Your task to perform on an android device: Clear the cart on costco.com. Search for bose soundlink mini on costco.com, select the first entry, add it to the cart, then select checkout. Image 0: 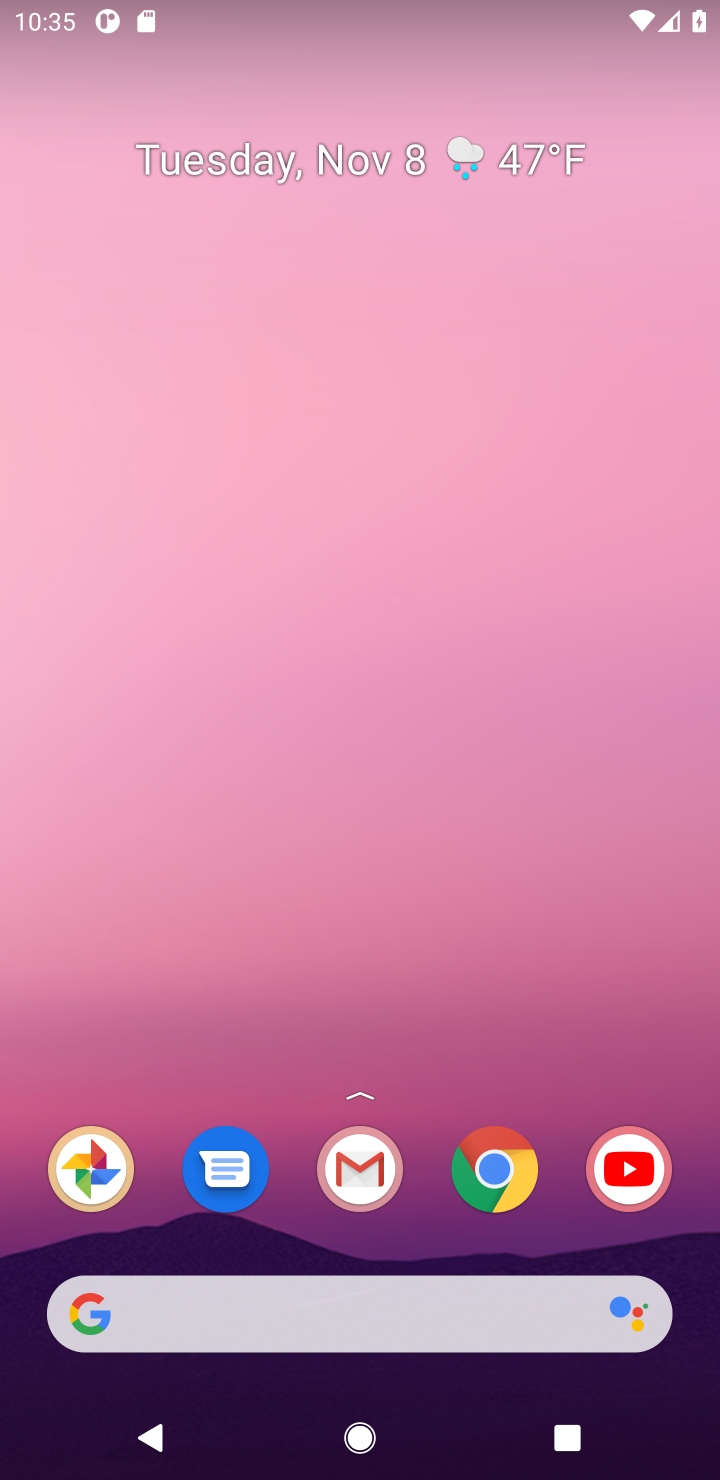
Step 0: click (495, 1150)
Your task to perform on an android device: Clear the cart on costco.com. Search for bose soundlink mini on costco.com, select the first entry, add it to the cart, then select checkout. Image 1: 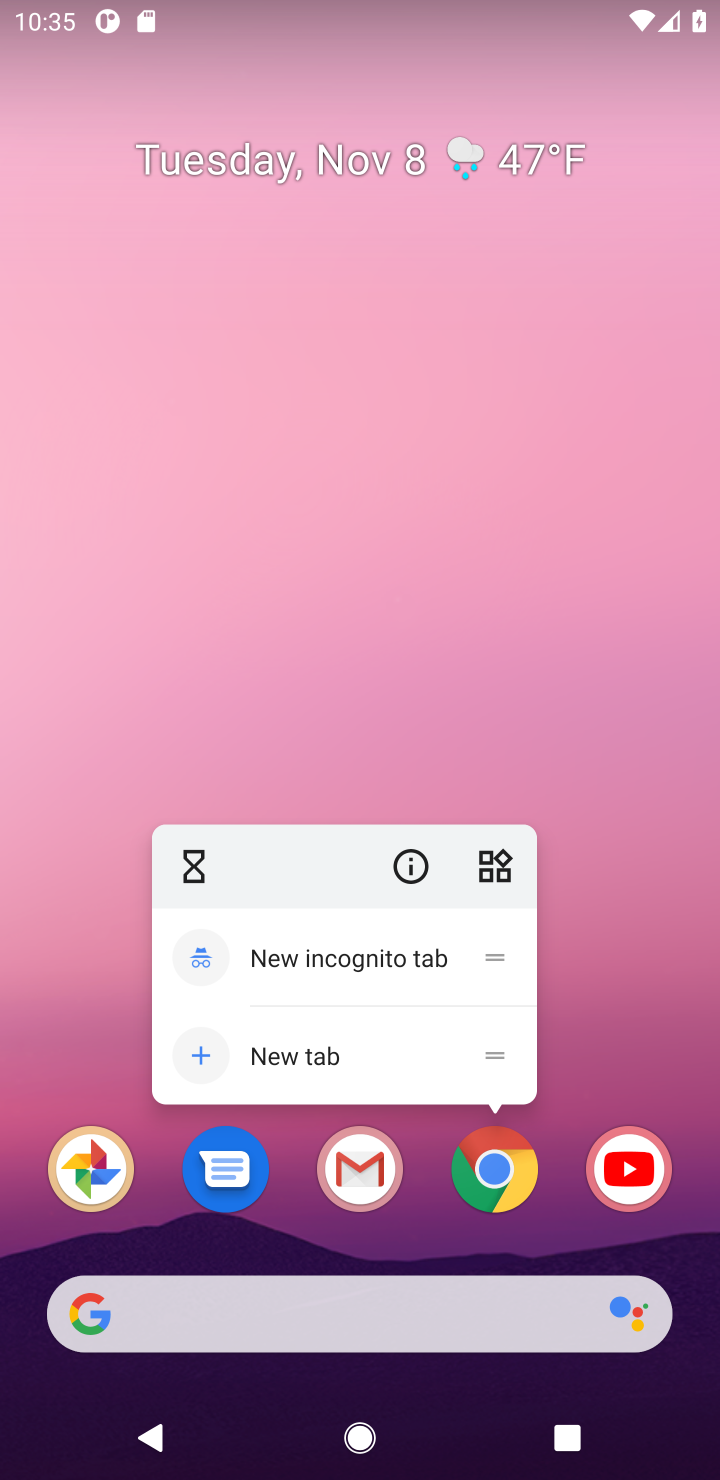
Step 1: click (499, 1148)
Your task to perform on an android device: Clear the cart on costco.com. Search for bose soundlink mini on costco.com, select the first entry, add it to the cart, then select checkout. Image 2: 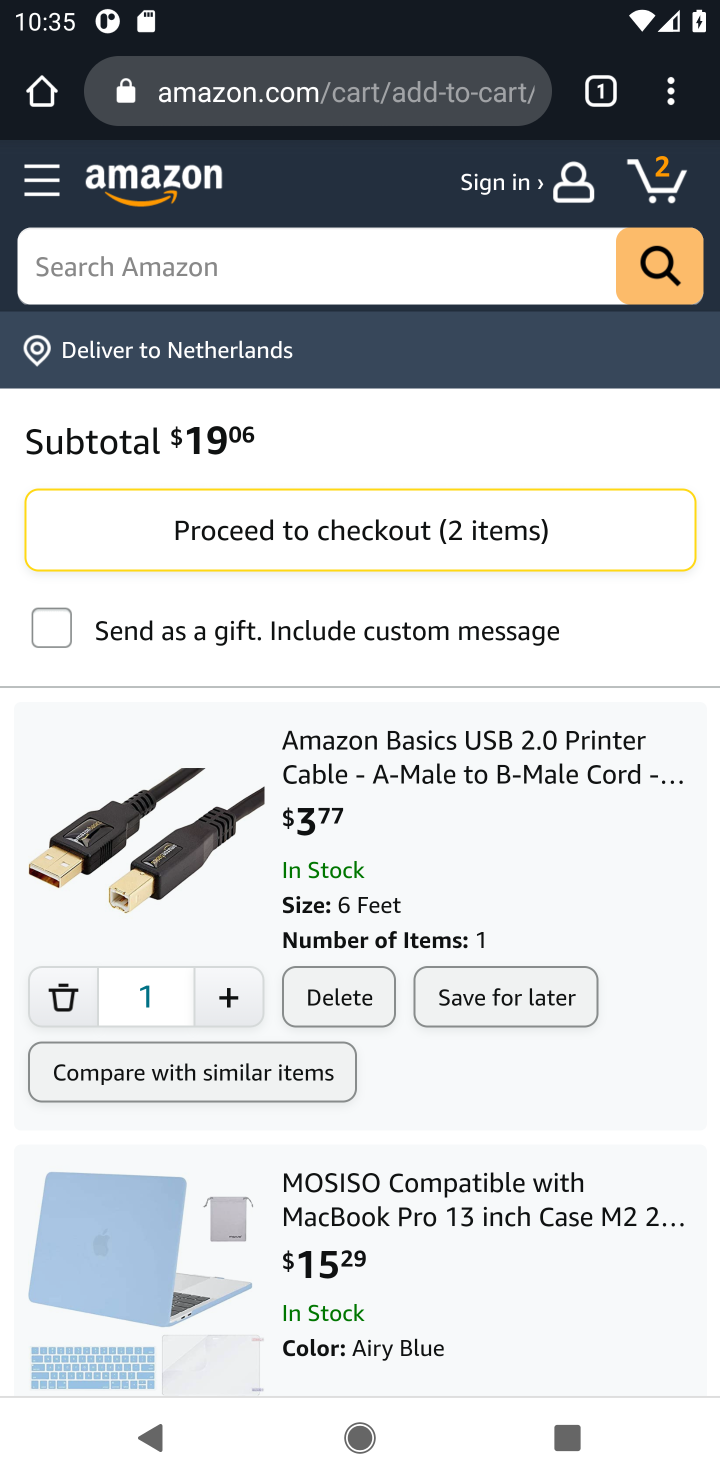
Step 2: click (404, 77)
Your task to perform on an android device: Clear the cart on costco.com. Search for bose soundlink mini on costco.com, select the first entry, add it to the cart, then select checkout. Image 3: 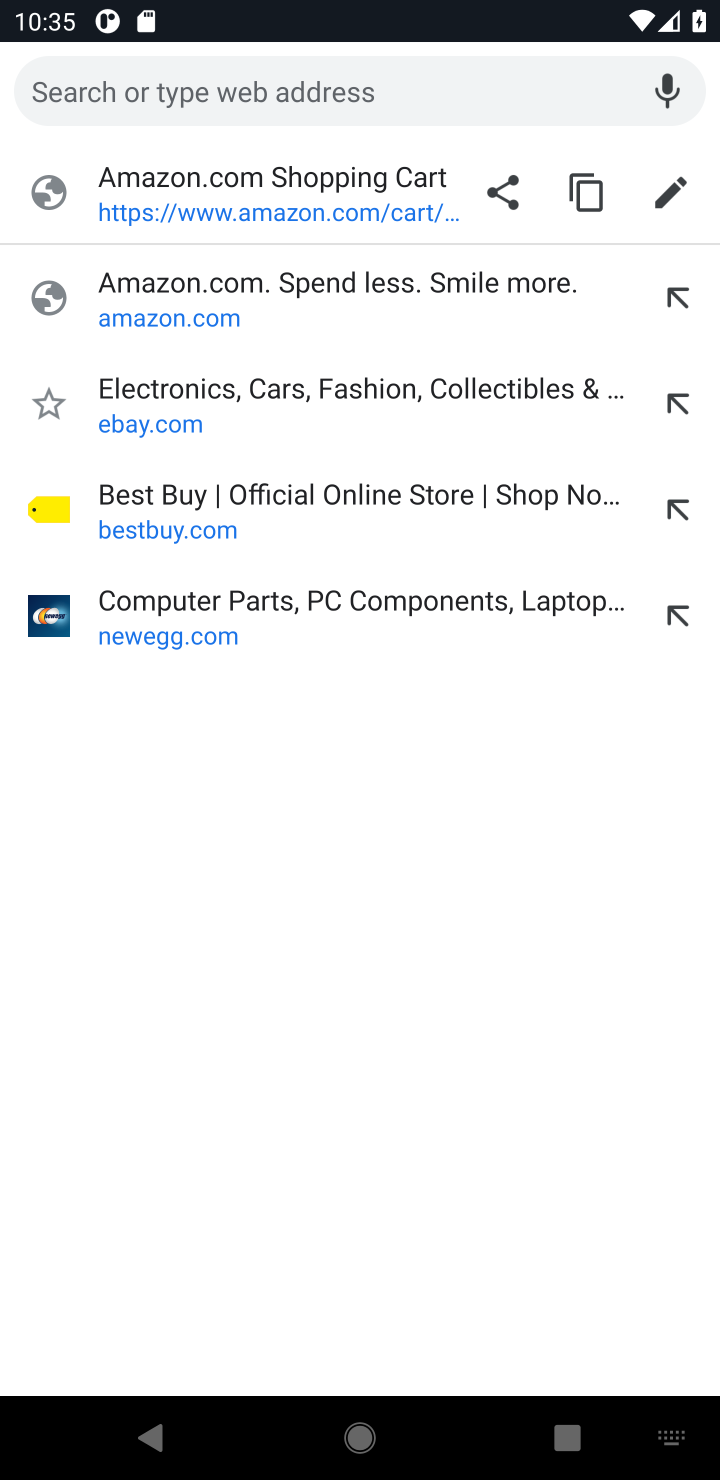
Step 3: type "costco.com"
Your task to perform on an android device: Clear the cart on costco.com. Search for bose soundlink mini on costco.com, select the first entry, add it to the cart, then select checkout. Image 4: 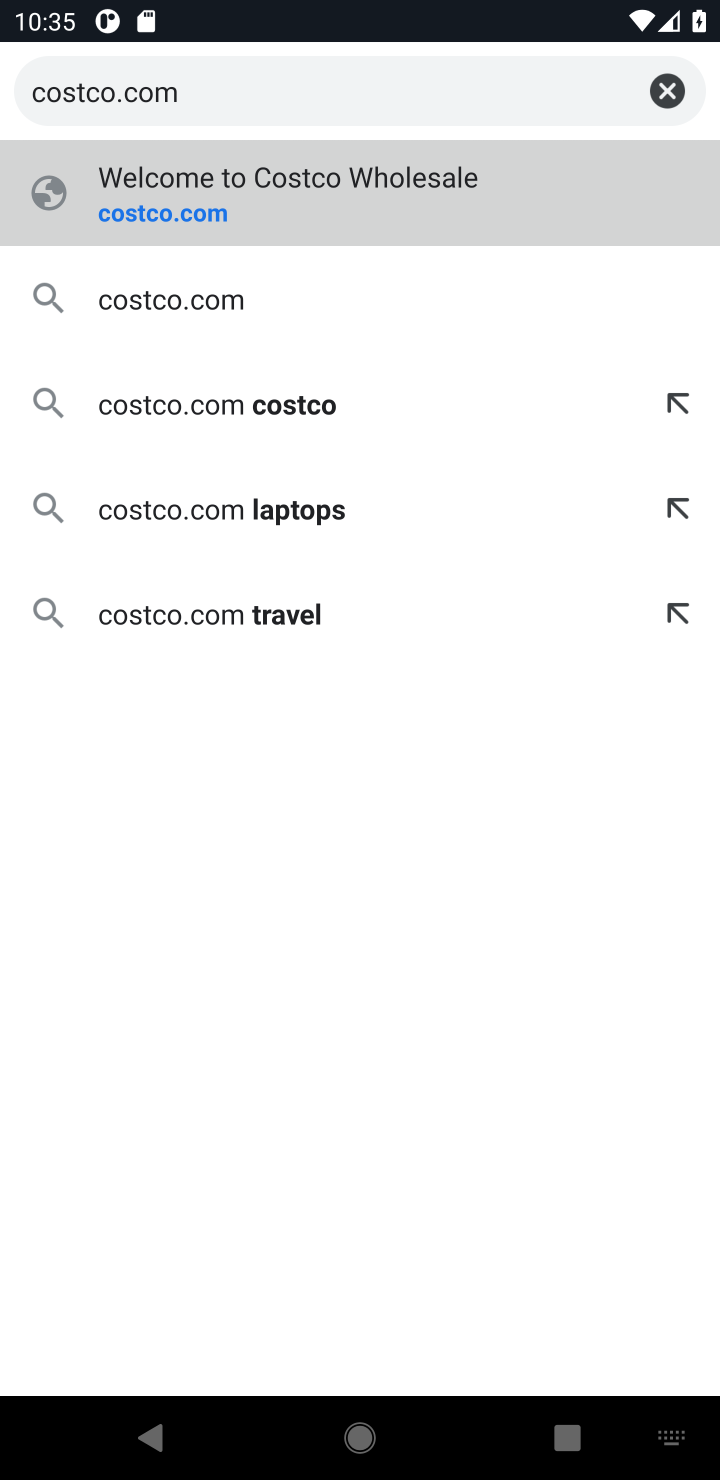
Step 4: press enter
Your task to perform on an android device: Clear the cart on costco.com. Search for bose soundlink mini on costco.com, select the first entry, add it to the cart, then select checkout. Image 5: 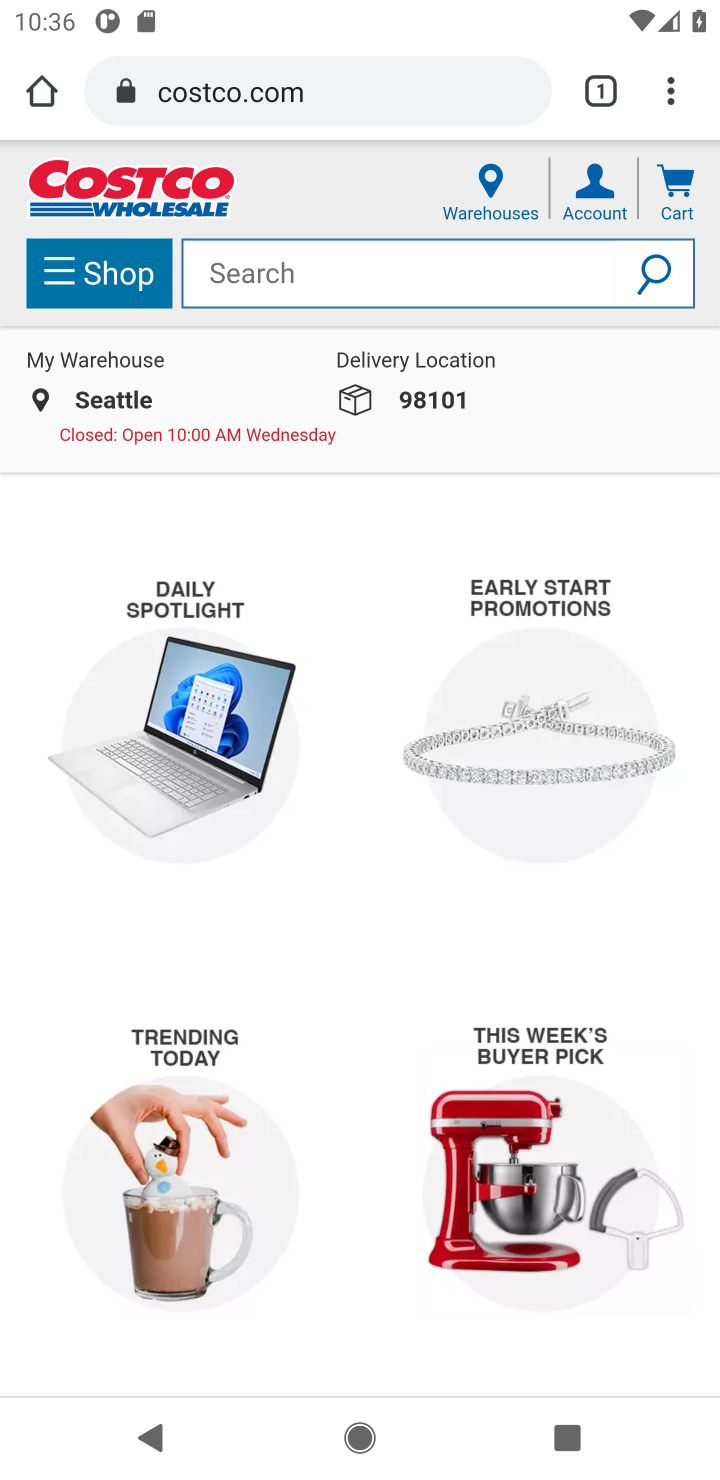
Step 5: click (379, 265)
Your task to perform on an android device: Clear the cart on costco.com. Search for bose soundlink mini on costco.com, select the first entry, add it to the cart, then select checkout. Image 6: 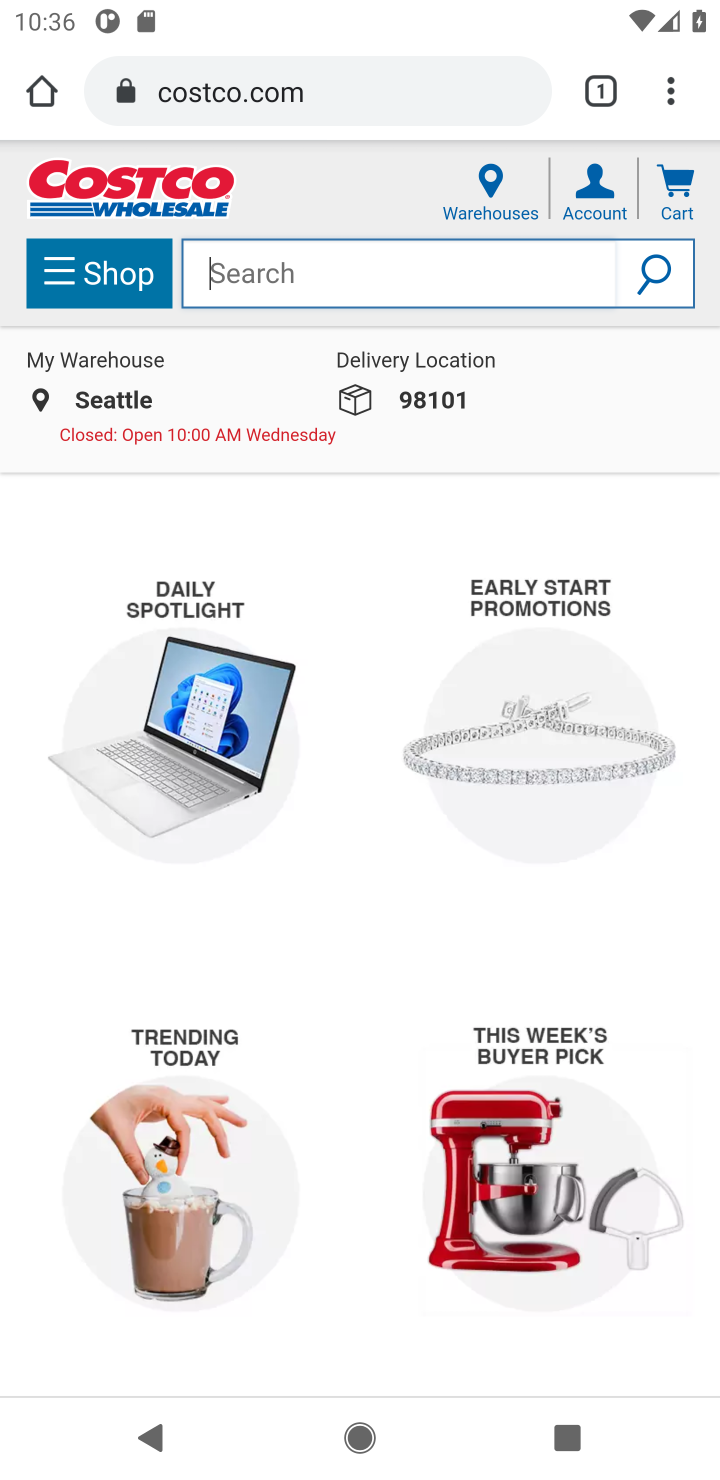
Step 6: press enter
Your task to perform on an android device: Clear the cart on costco.com. Search for bose soundlink mini on costco.com, select the first entry, add it to the cart, then select checkout. Image 7: 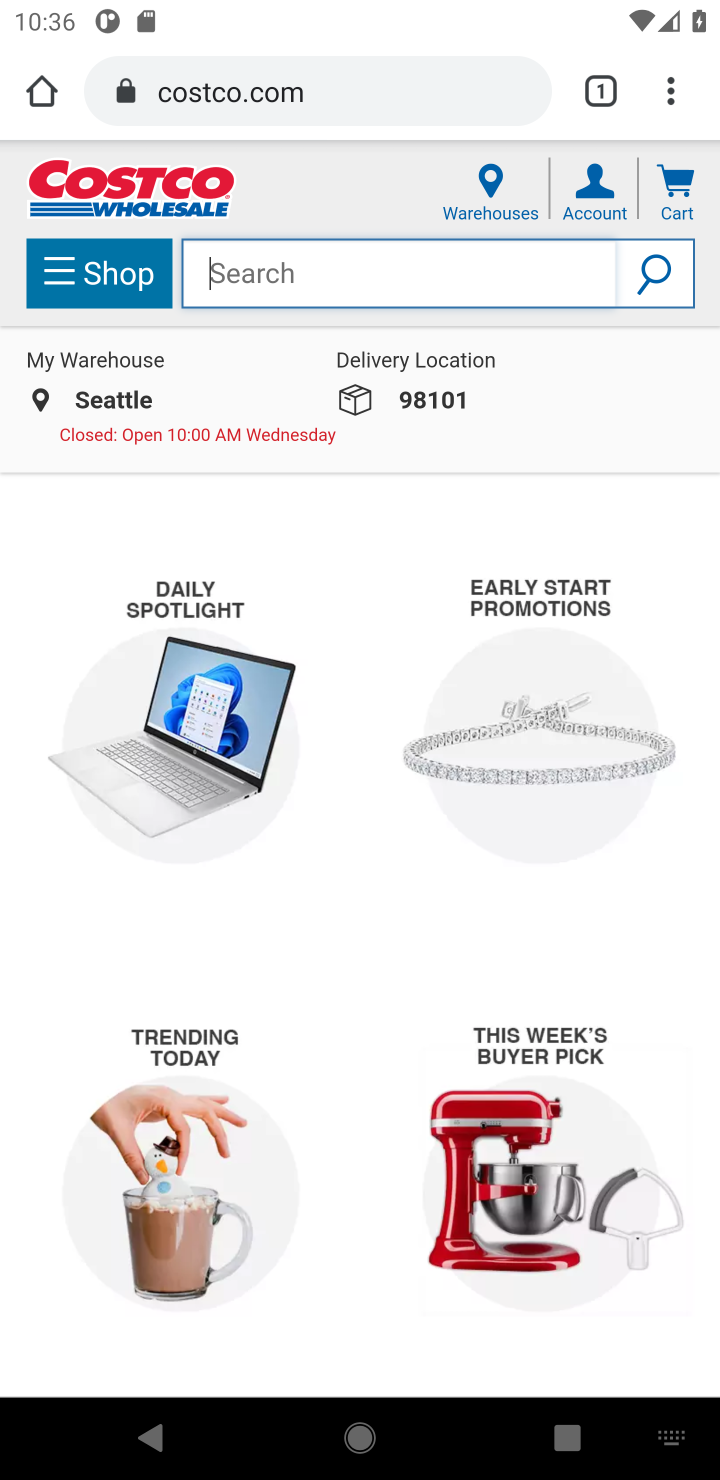
Step 7: type "bose soundlink mini "
Your task to perform on an android device: Clear the cart on costco.com. Search for bose soundlink mini on costco.com, select the first entry, add it to the cart, then select checkout. Image 8: 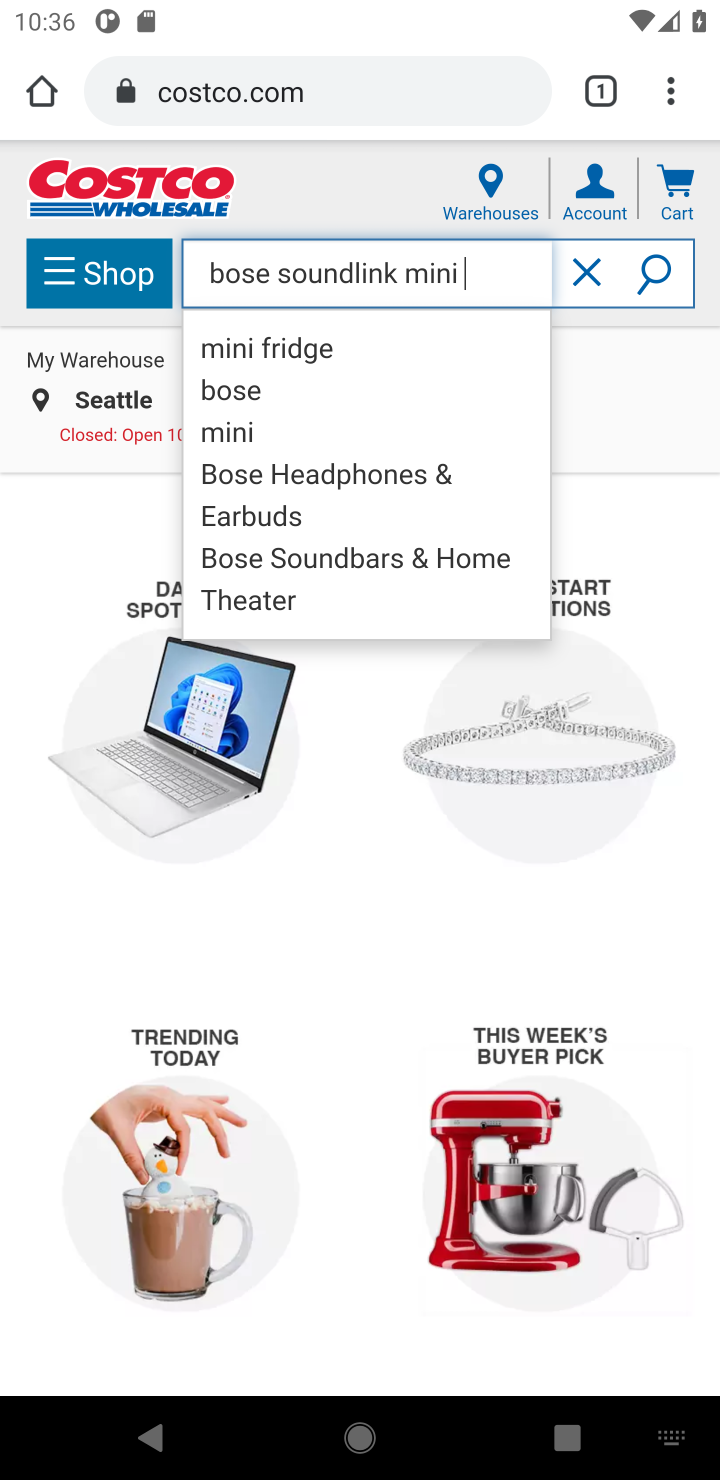
Step 8: click (638, 375)
Your task to perform on an android device: Clear the cart on costco.com. Search for bose soundlink mini on costco.com, select the first entry, add it to the cart, then select checkout. Image 9: 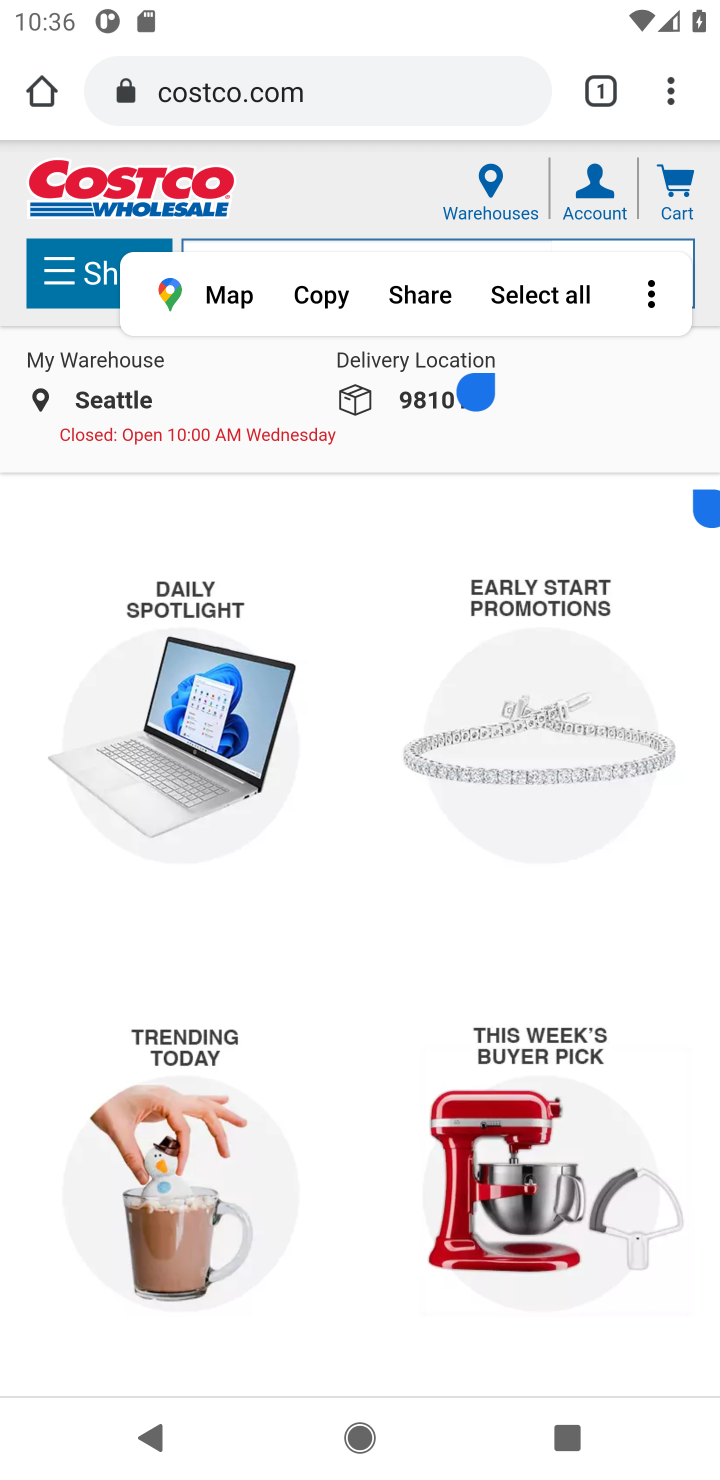
Step 9: click (641, 445)
Your task to perform on an android device: Clear the cart on costco.com. Search for bose soundlink mini on costco.com, select the first entry, add it to the cart, then select checkout. Image 10: 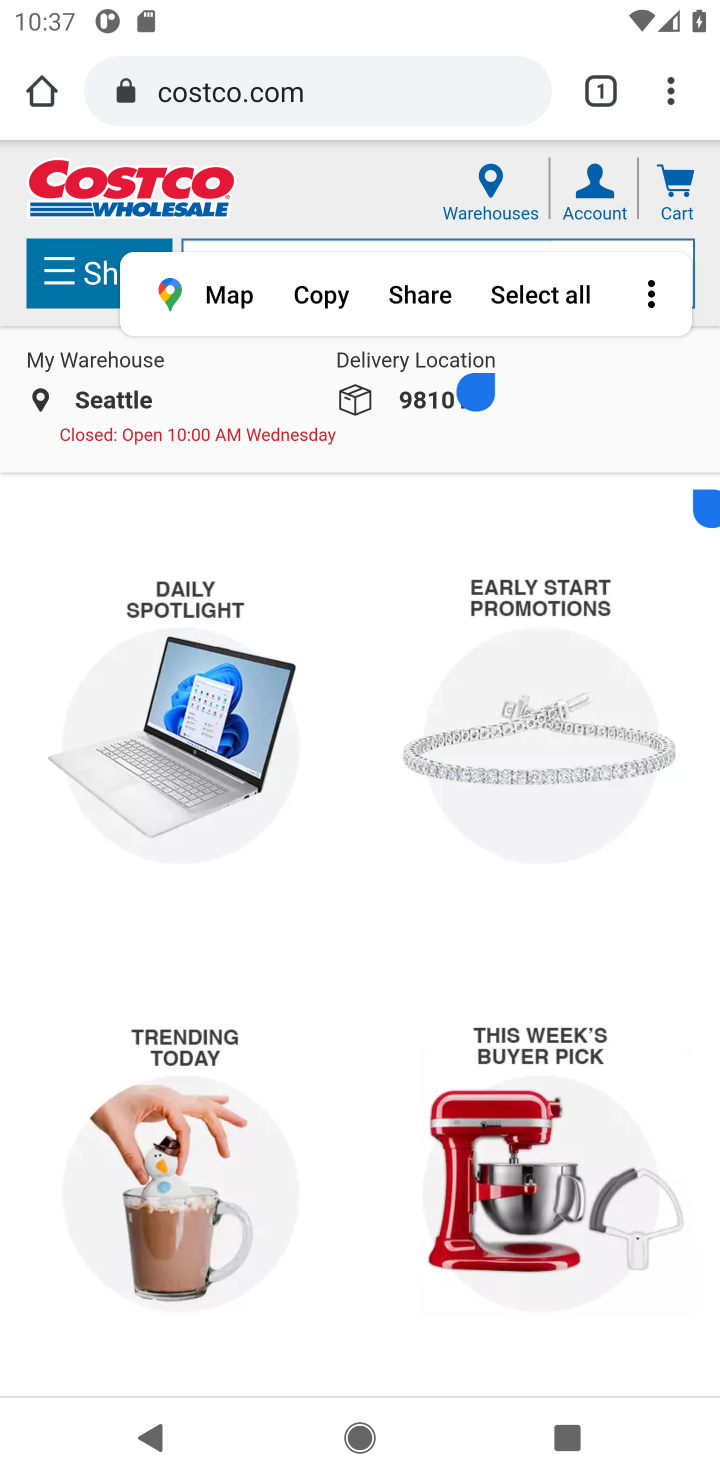
Step 10: click (552, 465)
Your task to perform on an android device: Clear the cart on costco.com. Search for bose soundlink mini on costco.com, select the first entry, add it to the cart, then select checkout. Image 11: 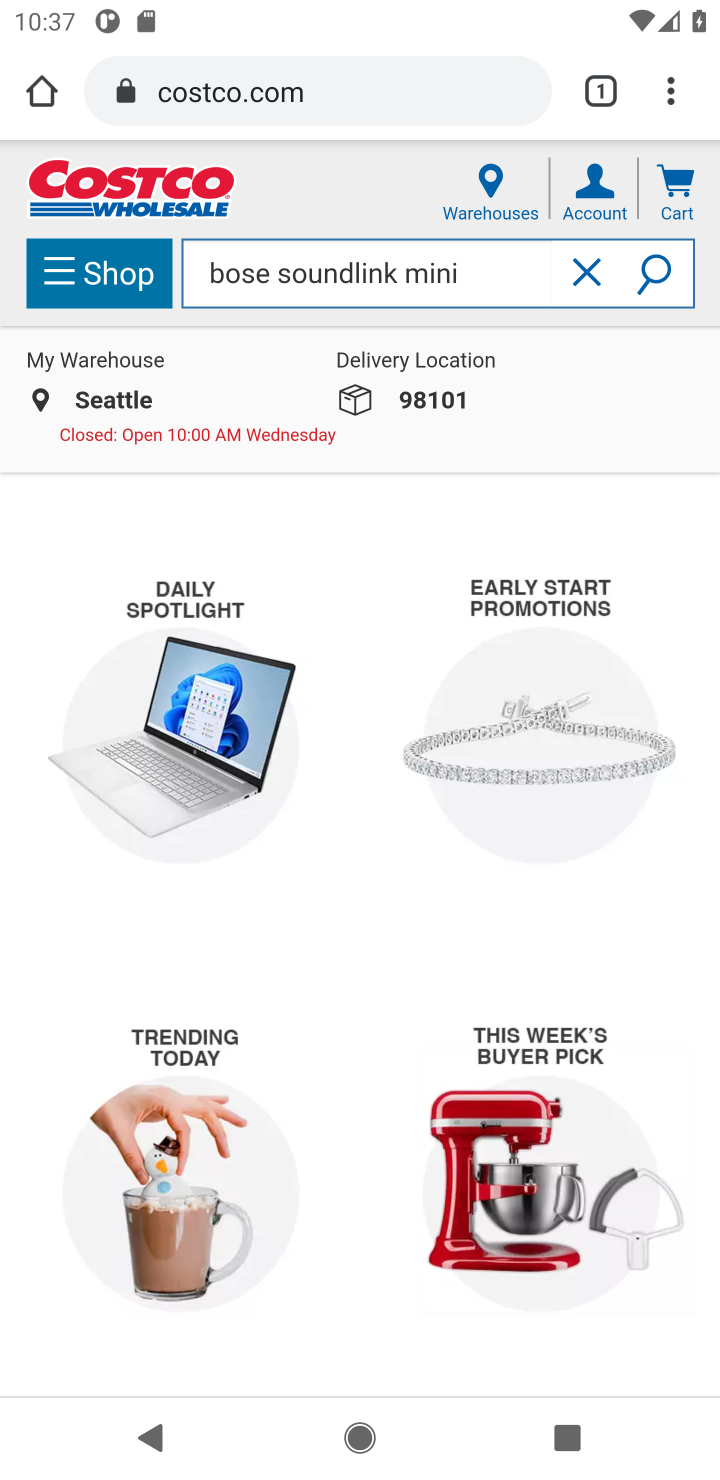
Step 11: task complete